Your task to perform on an android device: show emergency info Image 0: 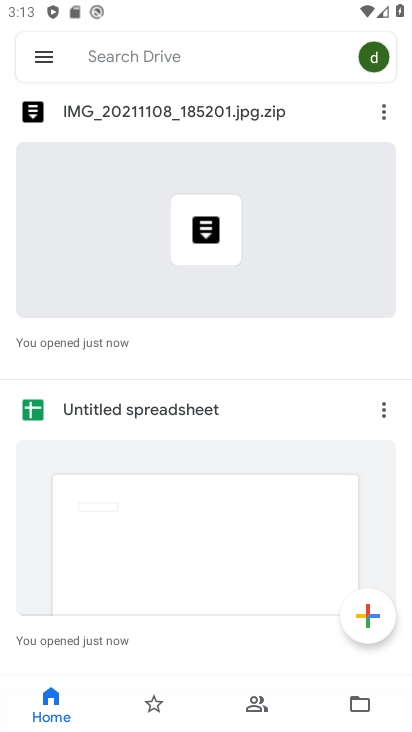
Step 0: press home button
Your task to perform on an android device: show emergency info Image 1: 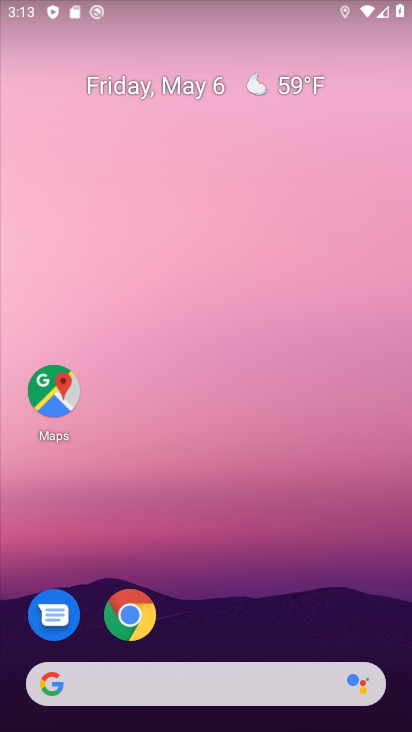
Step 1: drag from (332, 657) to (336, 10)
Your task to perform on an android device: show emergency info Image 2: 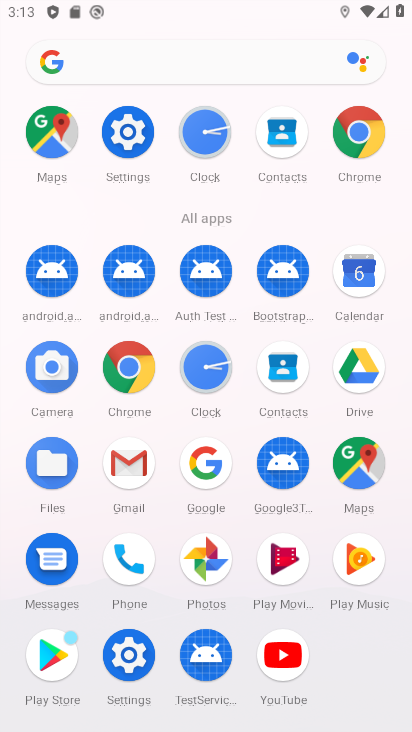
Step 2: click (127, 144)
Your task to perform on an android device: show emergency info Image 3: 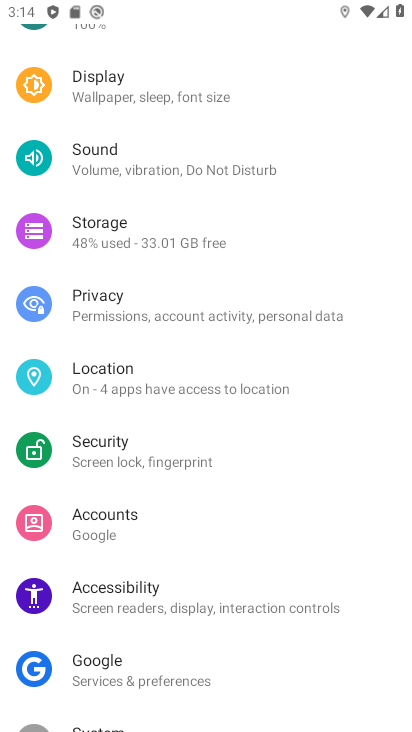
Step 3: drag from (286, 611) to (266, 50)
Your task to perform on an android device: show emergency info Image 4: 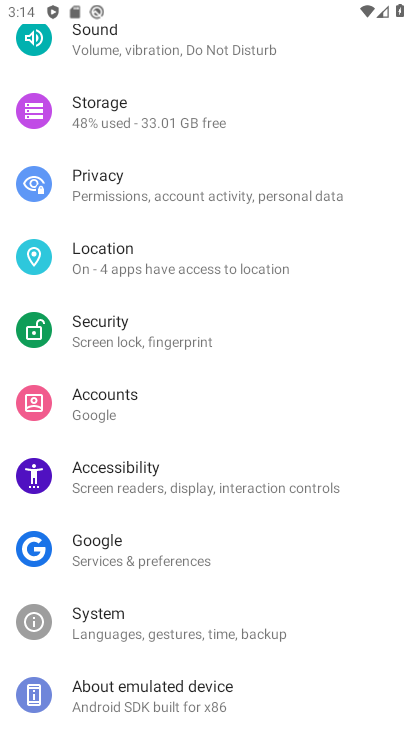
Step 4: click (166, 693)
Your task to perform on an android device: show emergency info Image 5: 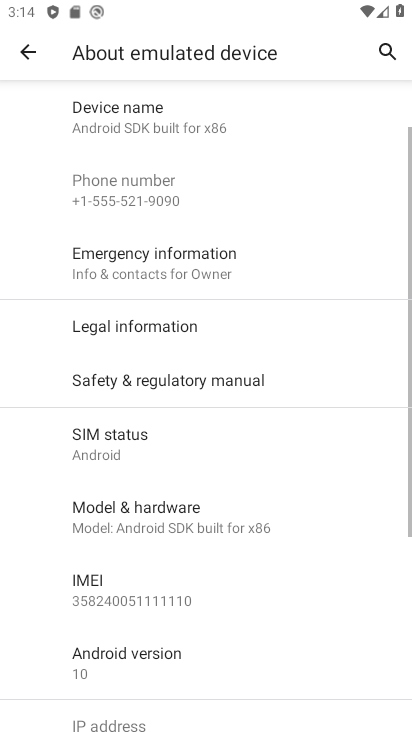
Step 5: click (116, 270)
Your task to perform on an android device: show emergency info Image 6: 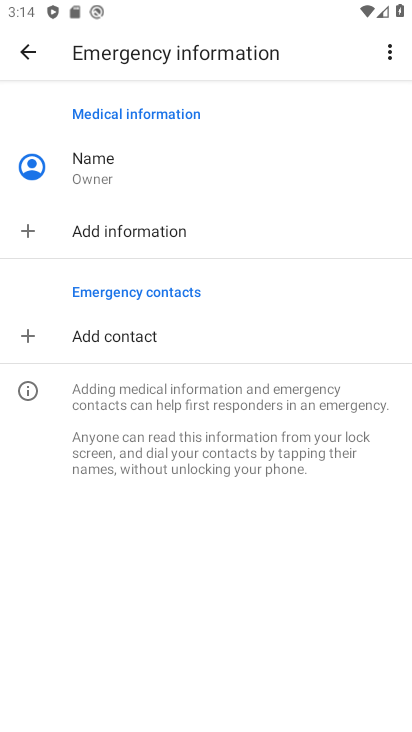
Step 6: task complete